Your task to perform on an android device: check battery use Image 0: 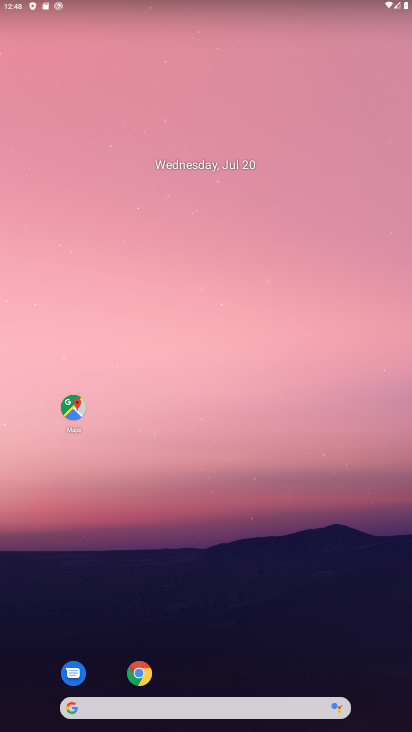
Step 0: drag from (181, 6) to (211, 645)
Your task to perform on an android device: check battery use Image 1: 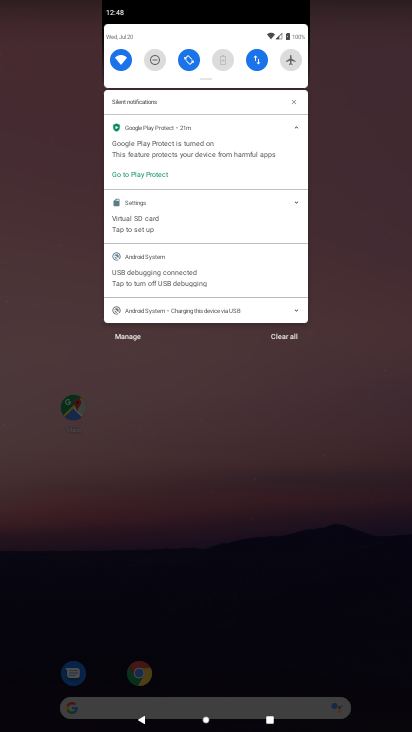
Step 1: click (223, 61)
Your task to perform on an android device: check battery use Image 2: 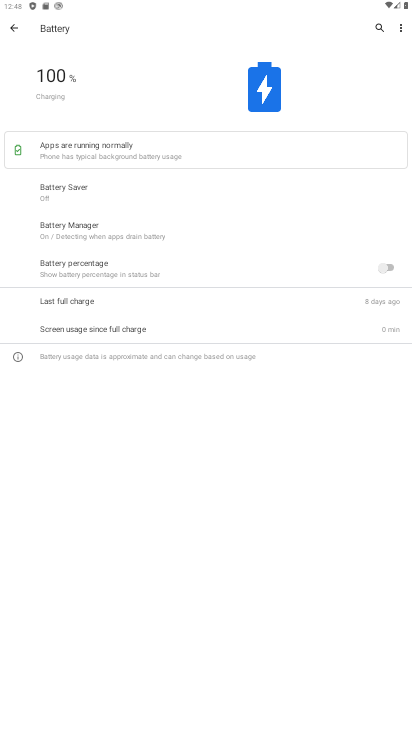
Step 2: task complete